Your task to perform on an android device: Open my contact list Image 0: 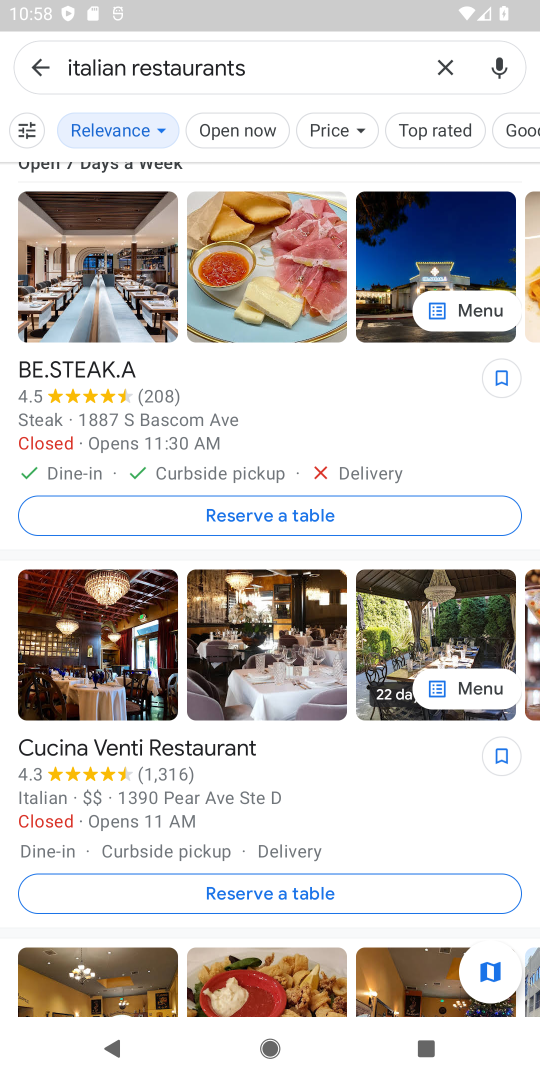
Step 0: press home button
Your task to perform on an android device: Open my contact list Image 1: 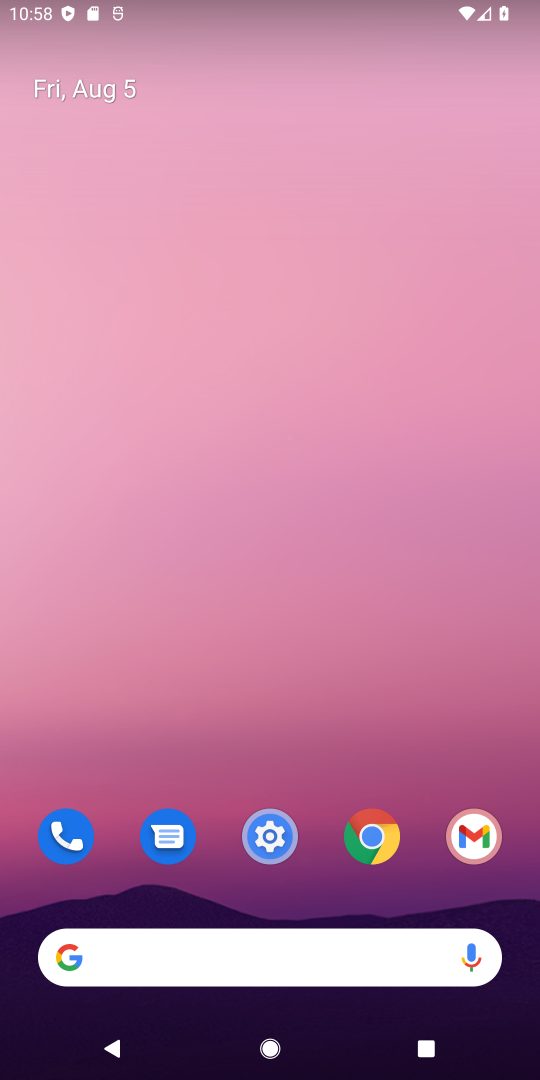
Step 1: drag from (309, 693) to (336, 113)
Your task to perform on an android device: Open my contact list Image 2: 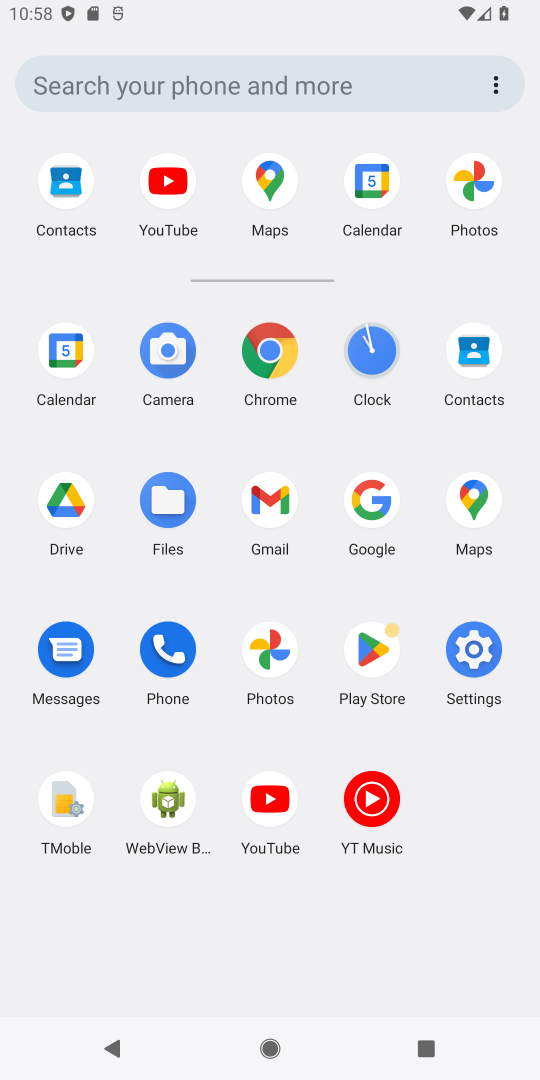
Step 2: click (472, 355)
Your task to perform on an android device: Open my contact list Image 3: 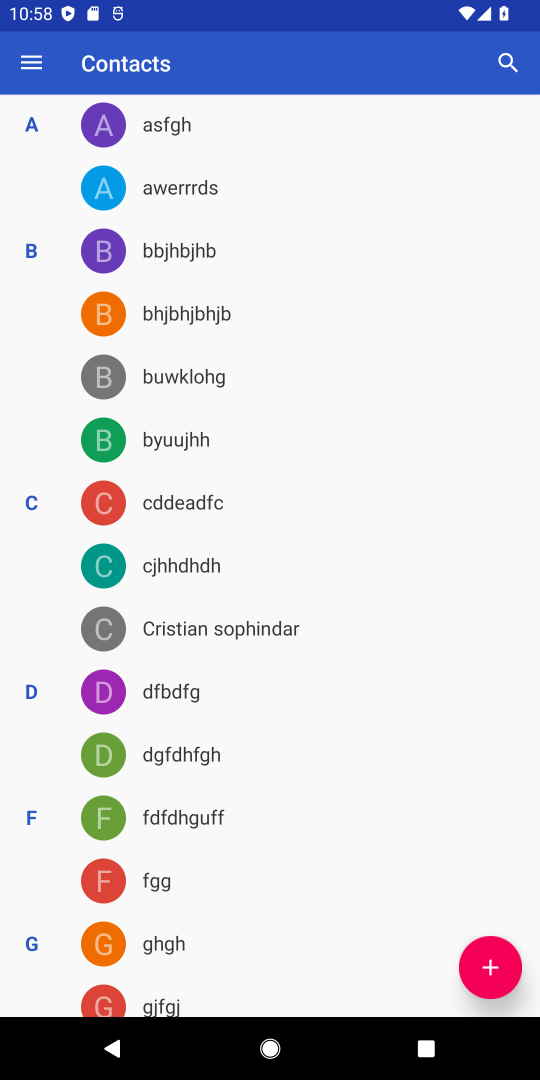
Step 3: task complete